Your task to perform on an android device: How do I get to the nearest Target? Image 0: 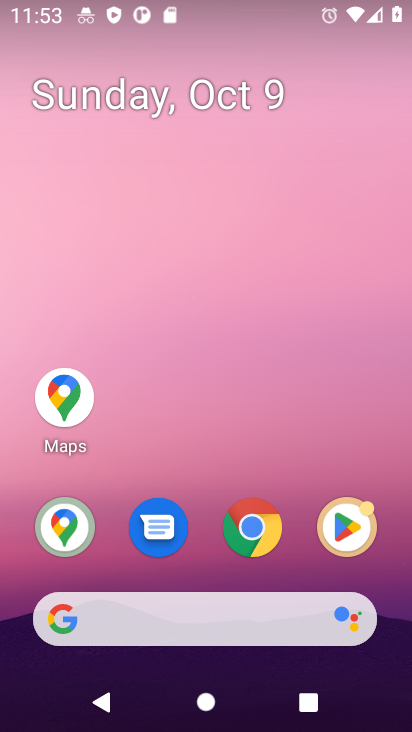
Step 0: click (265, 520)
Your task to perform on an android device: How do I get to the nearest Target? Image 1: 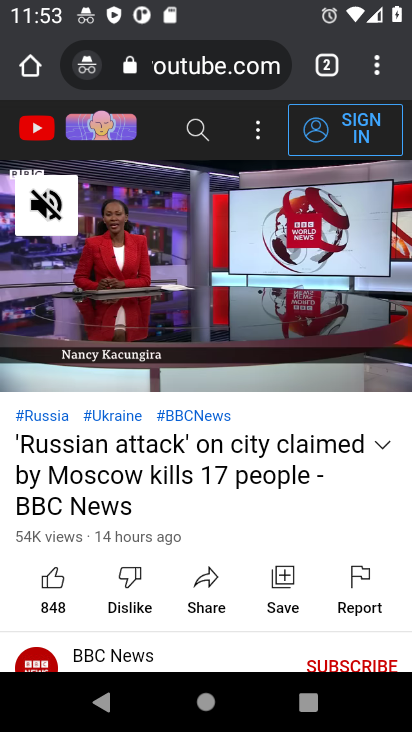
Step 1: click (162, 64)
Your task to perform on an android device: How do I get to the nearest Target? Image 2: 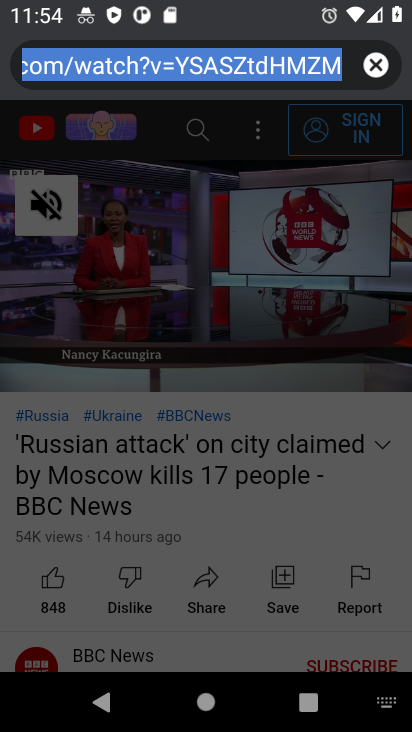
Step 2: type "How do I get to the nearest Target?"
Your task to perform on an android device: How do I get to the nearest Target? Image 3: 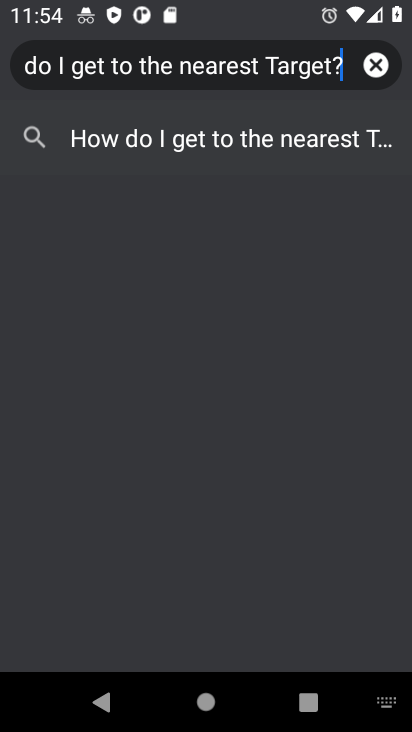
Step 3: click (228, 151)
Your task to perform on an android device: How do I get to the nearest Target? Image 4: 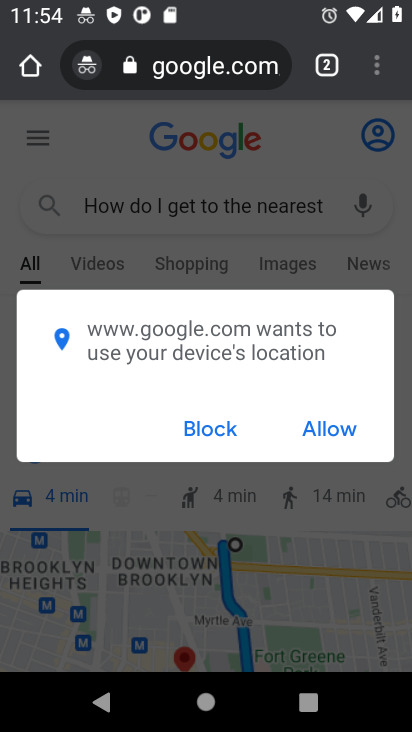
Step 4: click (323, 423)
Your task to perform on an android device: How do I get to the nearest Target? Image 5: 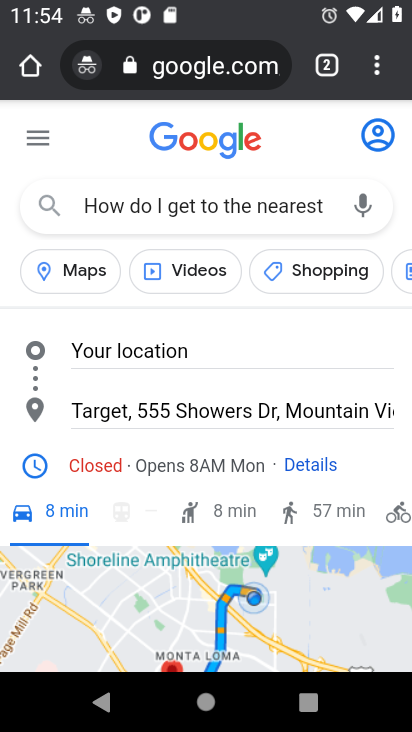
Step 5: task complete